Your task to perform on an android device: Search for Italian restaurants on Maps Image 0: 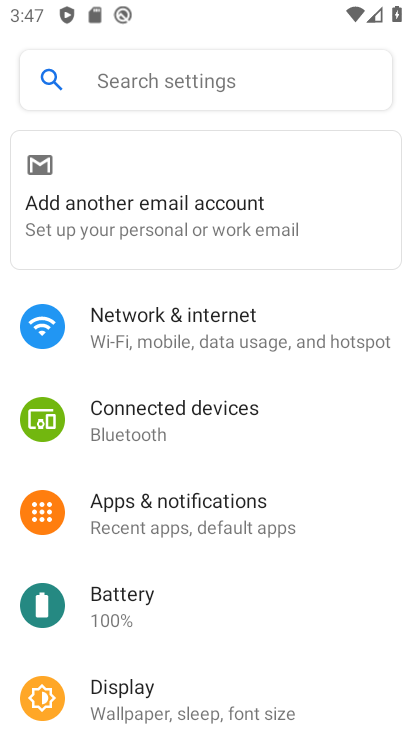
Step 0: press home button
Your task to perform on an android device: Search for Italian restaurants on Maps Image 1: 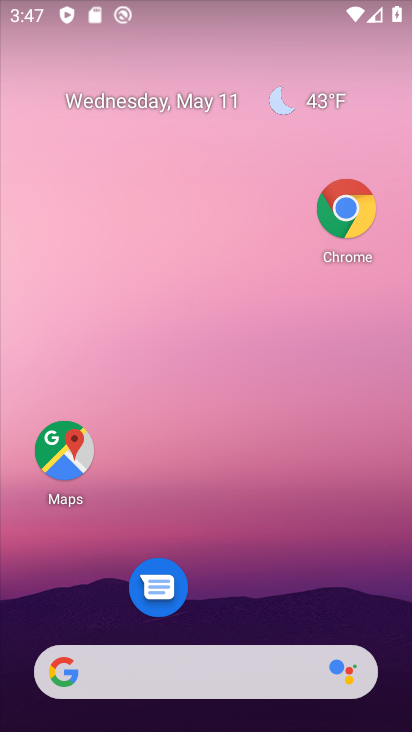
Step 1: click (45, 458)
Your task to perform on an android device: Search for Italian restaurants on Maps Image 2: 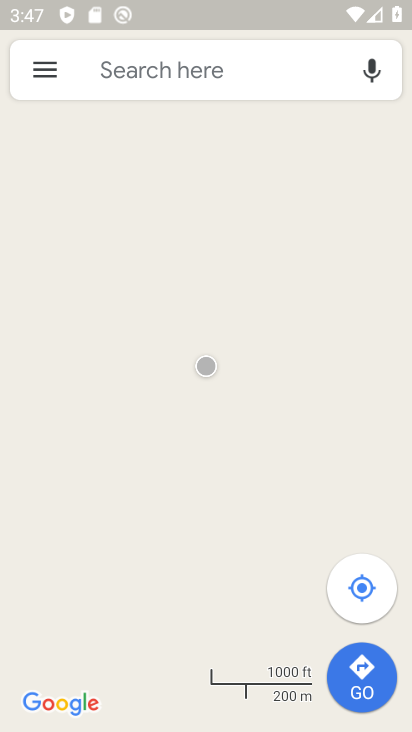
Step 2: click (96, 72)
Your task to perform on an android device: Search for Italian restaurants on Maps Image 3: 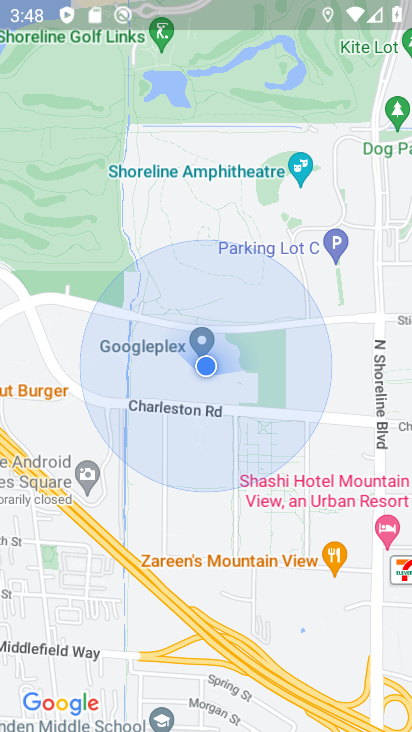
Step 3: type "italian restaurants"
Your task to perform on an android device: Search for Italian restaurants on Maps Image 4: 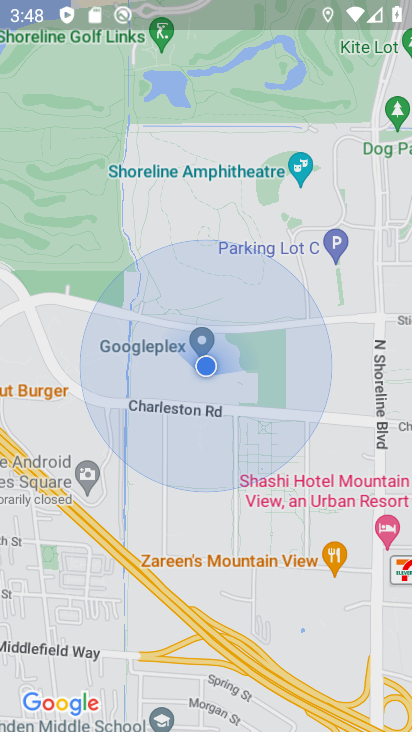
Step 4: drag from (257, 168) to (245, 643)
Your task to perform on an android device: Search for Italian restaurants on Maps Image 5: 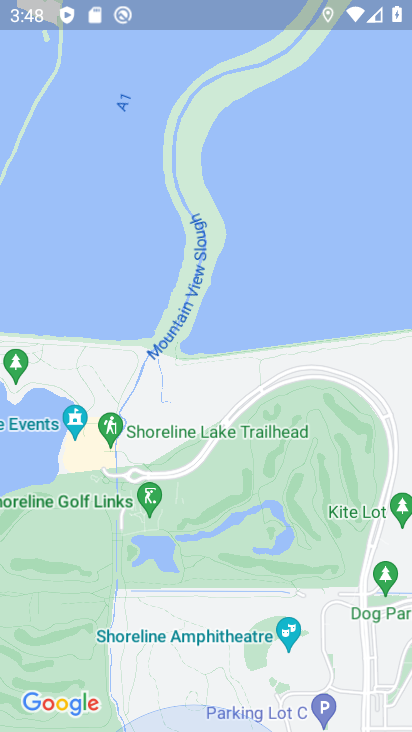
Step 5: drag from (234, 229) to (289, 601)
Your task to perform on an android device: Search for Italian restaurants on Maps Image 6: 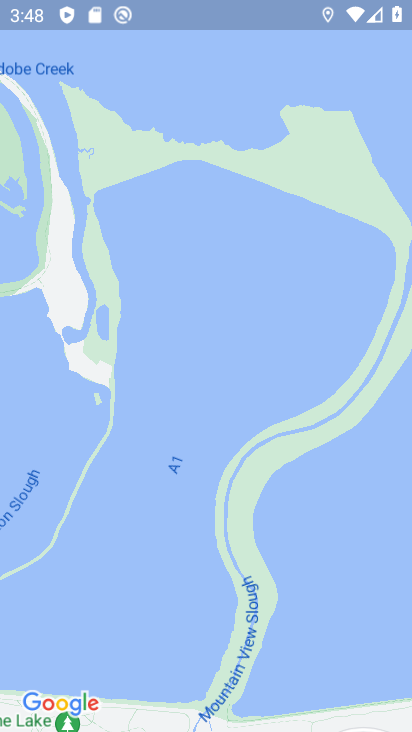
Step 6: drag from (211, 237) to (262, 610)
Your task to perform on an android device: Search for Italian restaurants on Maps Image 7: 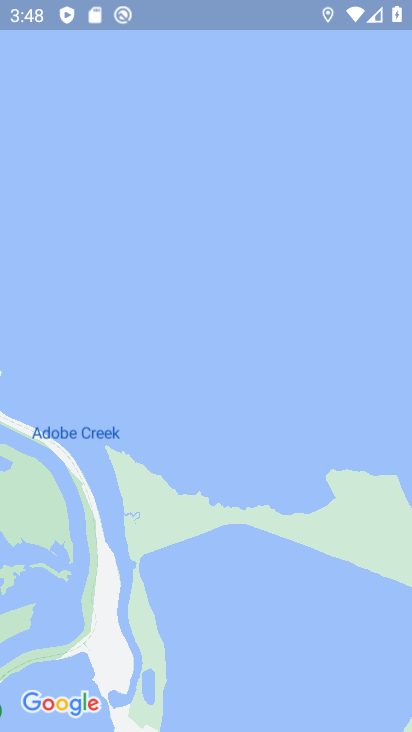
Step 7: drag from (216, 163) to (227, 492)
Your task to perform on an android device: Search for Italian restaurants on Maps Image 8: 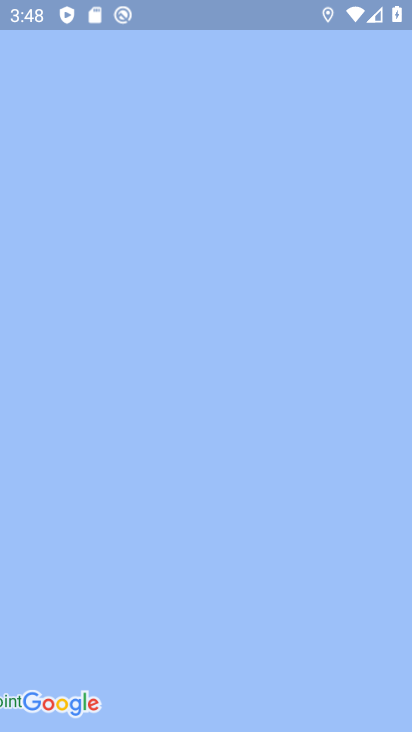
Step 8: drag from (166, 39) to (392, 368)
Your task to perform on an android device: Search for Italian restaurants on Maps Image 9: 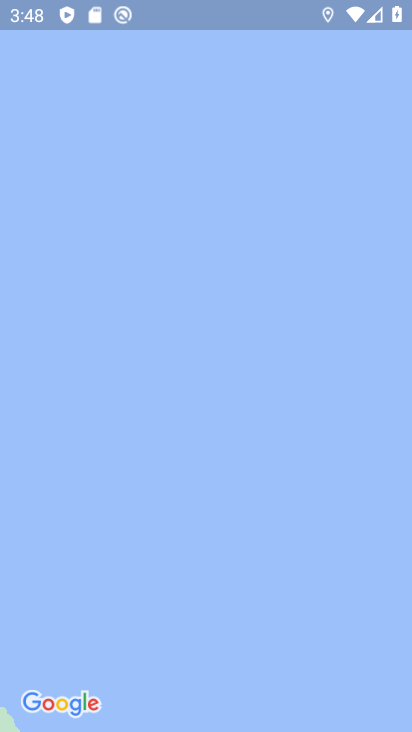
Step 9: press back button
Your task to perform on an android device: Search for Italian restaurants on Maps Image 10: 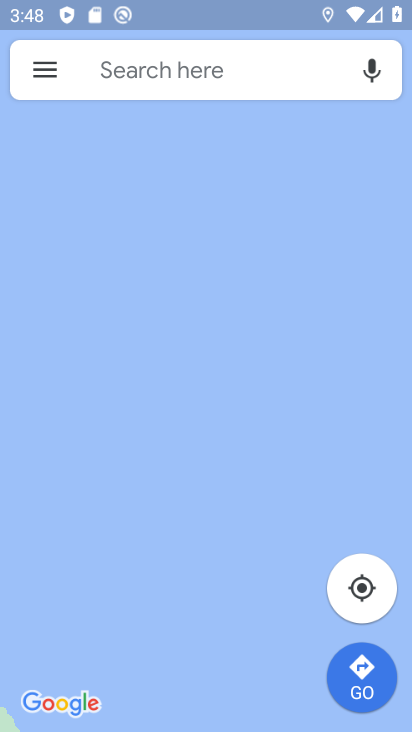
Step 10: click (263, 73)
Your task to perform on an android device: Search for Italian restaurants on Maps Image 11: 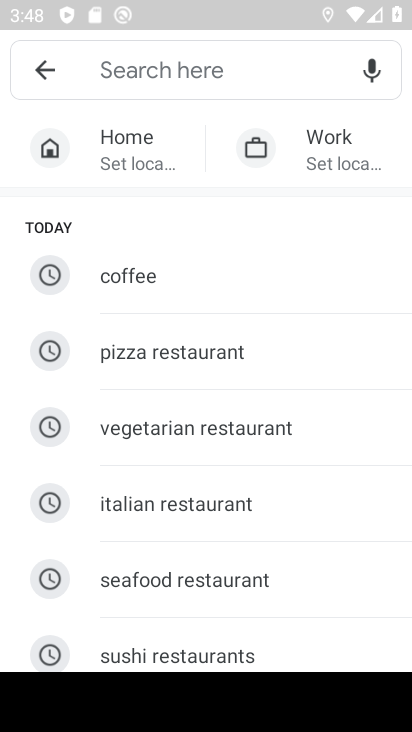
Step 11: click (238, 507)
Your task to perform on an android device: Search for Italian restaurants on Maps Image 12: 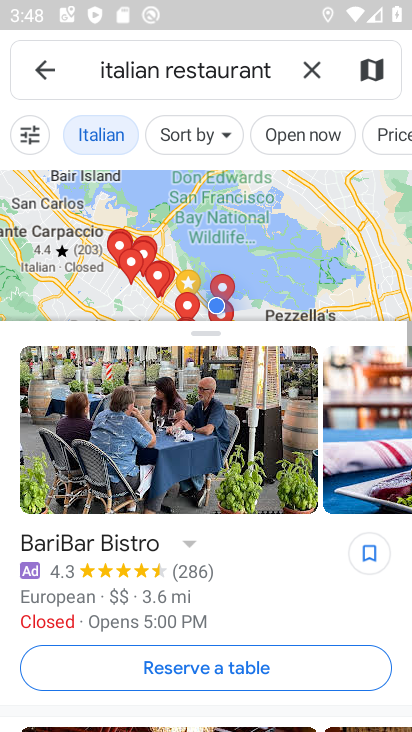
Step 12: task complete